Your task to perform on an android device: Search for hotels in Atlanta Image 0: 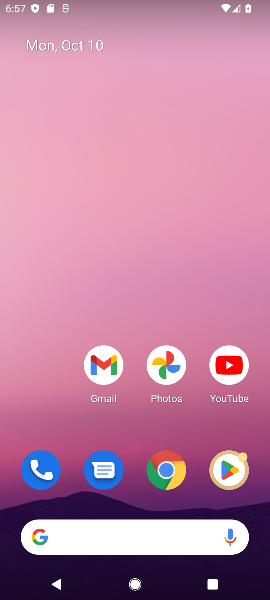
Step 0: click (156, 471)
Your task to perform on an android device: Search for hotels in Atlanta Image 1: 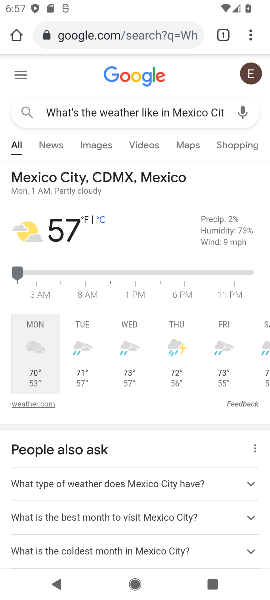
Step 1: click (160, 470)
Your task to perform on an android device: Search for hotels in Atlanta Image 2: 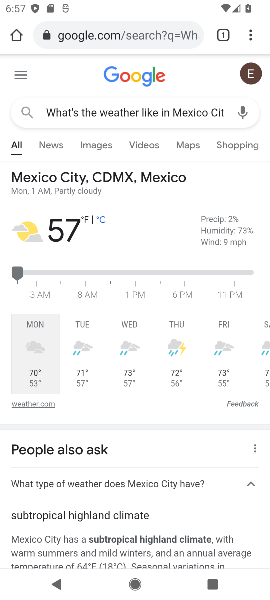
Step 2: click (100, 29)
Your task to perform on an android device: Search for hotels in Atlanta Image 3: 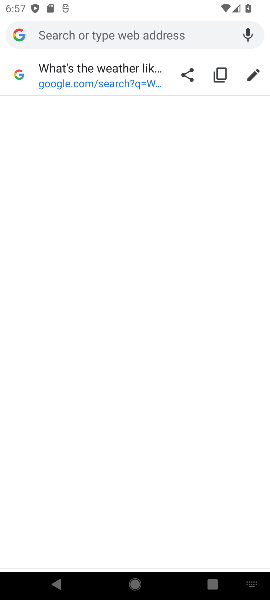
Step 3: click (85, 43)
Your task to perform on an android device: Search for hotels in Atlanta Image 4: 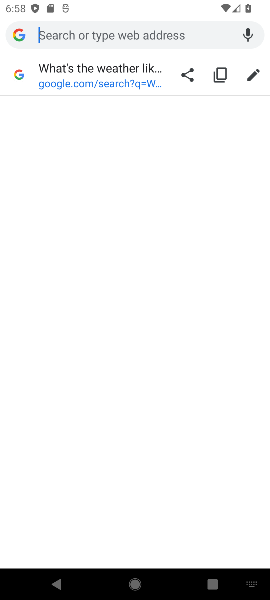
Step 4: type "Search for hotels in Atlanta"
Your task to perform on an android device: Search for hotels in Atlanta Image 5: 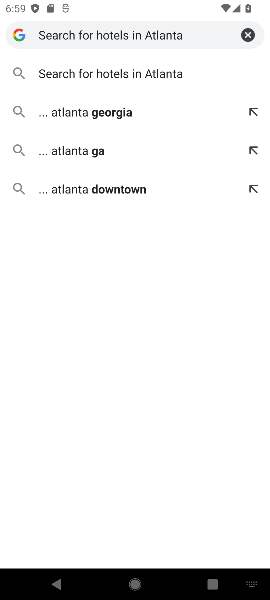
Step 5: click (122, 75)
Your task to perform on an android device: Search for hotels in Atlanta Image 6: 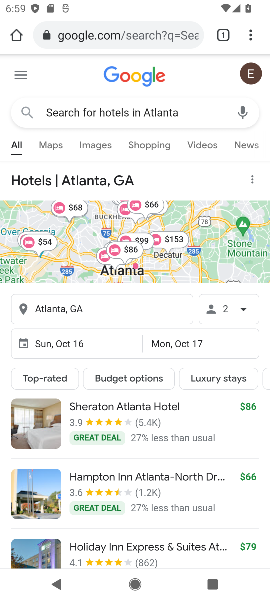
Step 6: task complete